Your task to perform on an android device: add a contact Image 0: 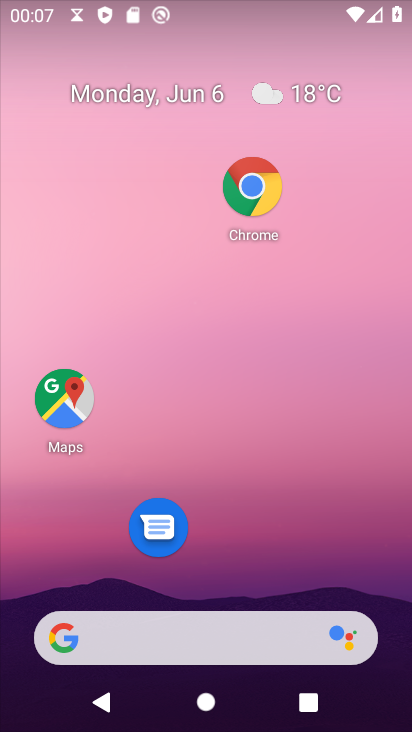
Step 0: drag from (224, 546) to (146, 68)
Your task to perform on an android device: add a contact Image 1: 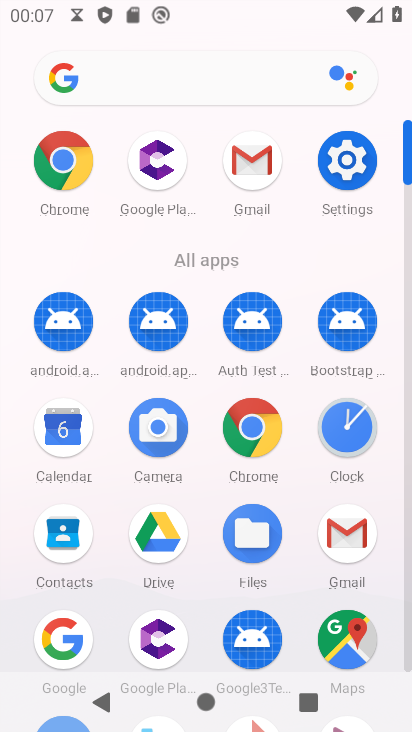
Step 1: click (59, 566)
Your task to perform on an android device: add a contact Image 2: 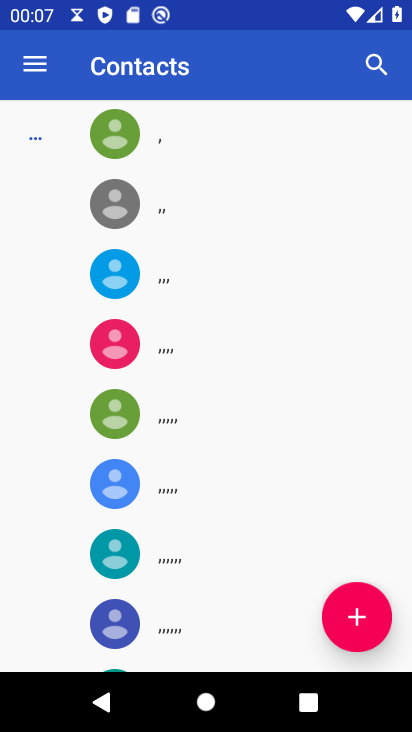
Step 2: click (361, 622)
Your task to perform on an android device: add a contact Image 3: 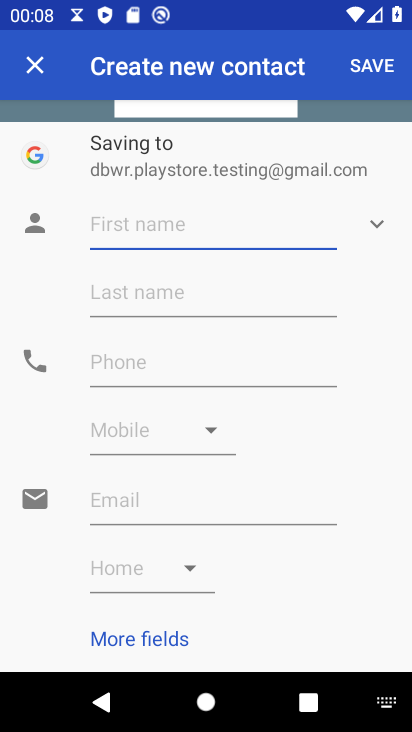
Step 3: type "Doremon"
Your task to perform on an android device: add a contact Image 4: 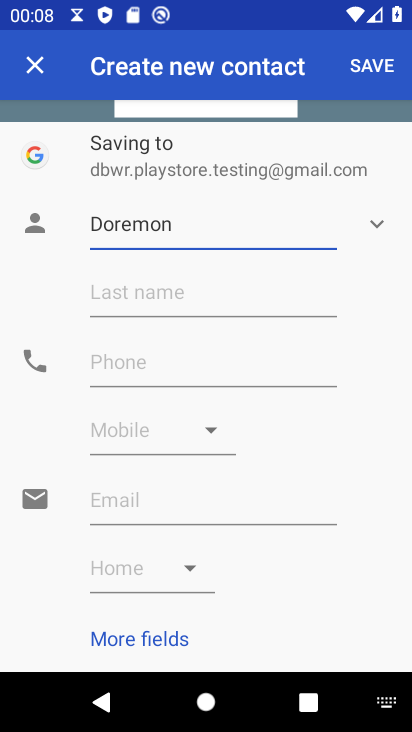
Step 4: click (163, 286)
Your task to perform on an android device: add a contact Image 5: 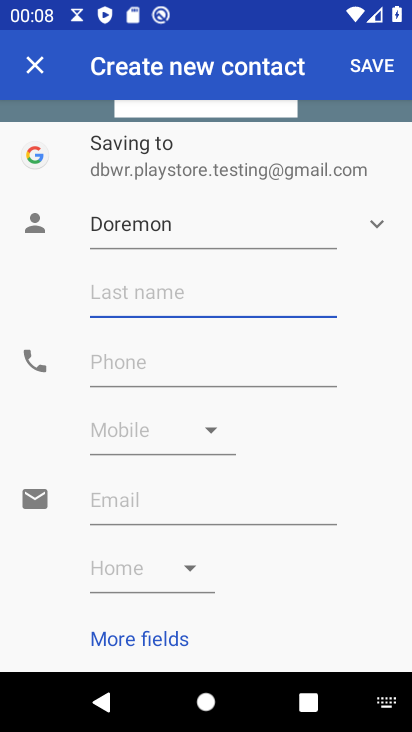
Step 5: type "sharma"
Your task to perform on an android device: add a contact Image 6: 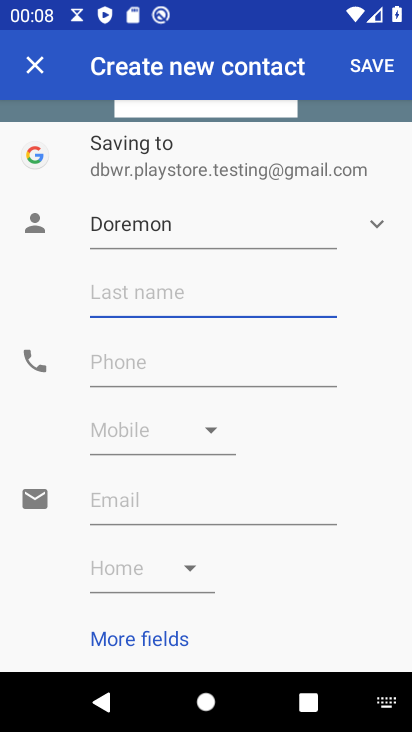
Step 6: click (107, 367)
Your task to perform on an android device: add a contact Image 7: 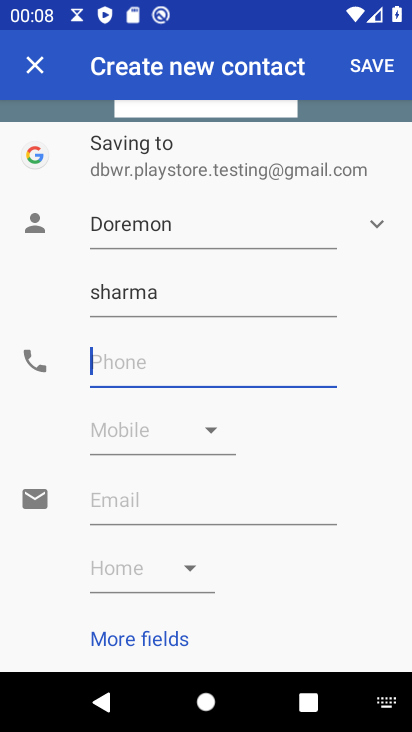
Step 7: type "8788878899"
Your task to perform on an android device: add a contact Image 8: 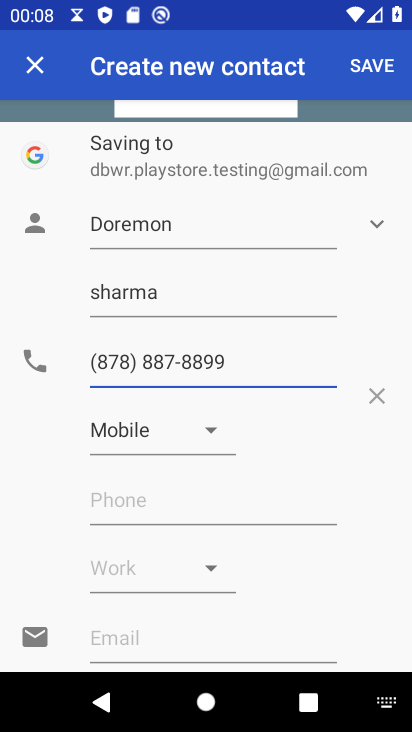
Step 8: click (372, 68)
Your task to perform on an android device: add a contact Image 9: 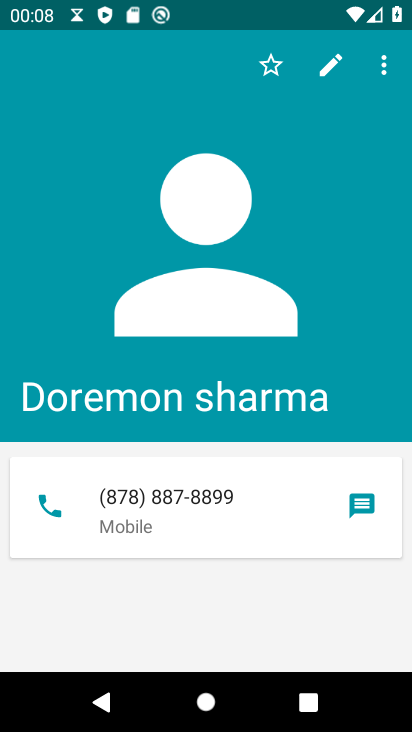
Step 9: task complete